Your task to perform on an android device: toggle airplane mode Image 0: 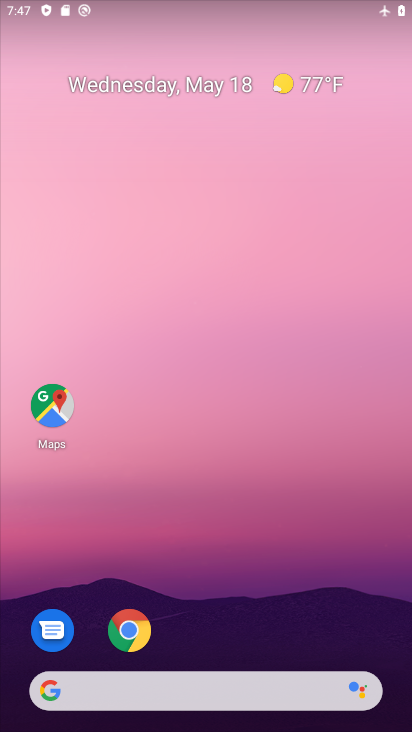
Step 0: drag from (244, 631) to (280, 256)
Your task to perform on an android device: toggle airplane mode Image 1: 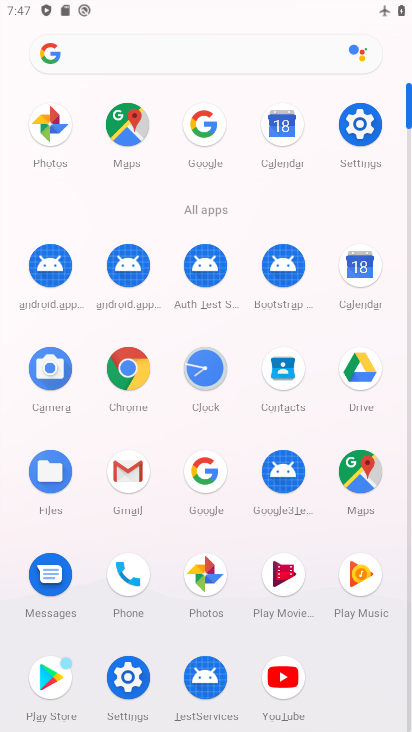
Step 1: click (362, 131)
Your task to perform on an android device: toggle airplane mode Image 2: 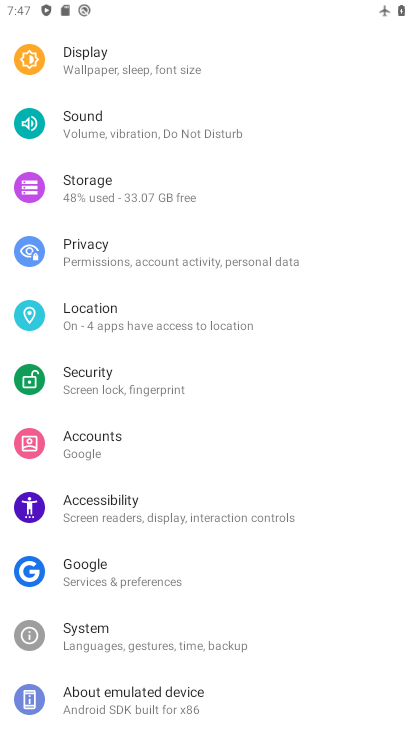
Step 2: drag from (314, 172) to (267, 602)
Your task to perform on an android device: toggle airplane mode Image 3: 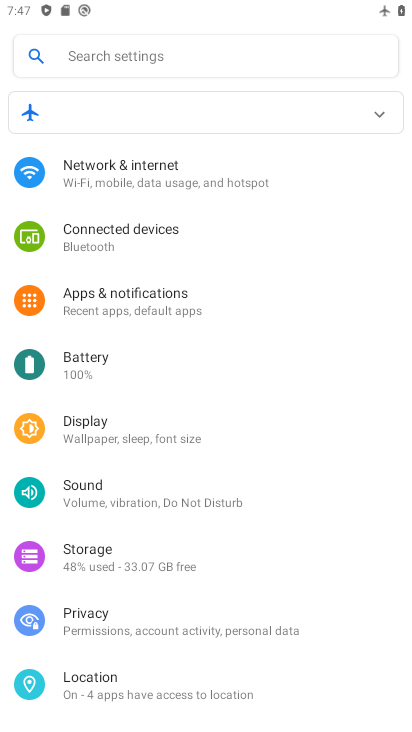
Step 3: click (254, 173)
Your task to perform on an android device: toggle airplane mode Image 4: 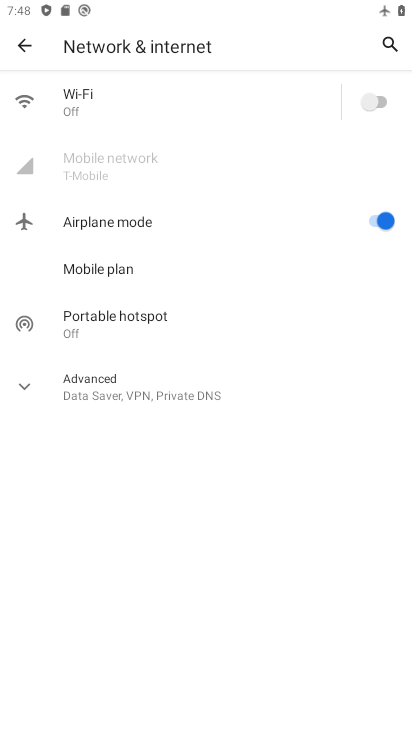
Step 4: click (392, 225)
Your task to perform on an android device: toggle airplane mode Image 5: 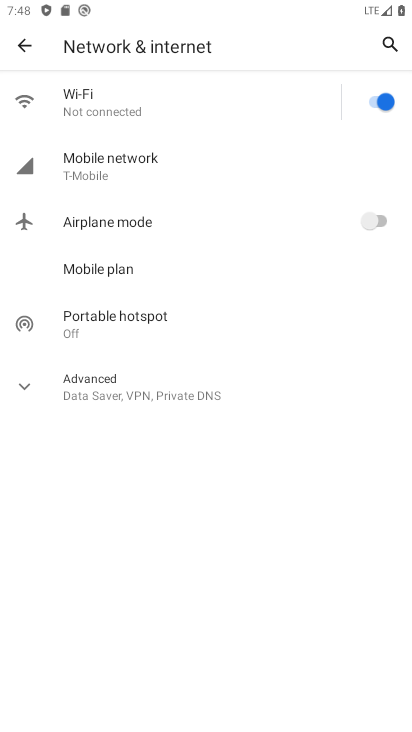
Step 5: task complete